Your task to perform on an android device: delete a single message in the gmail app Image 0: 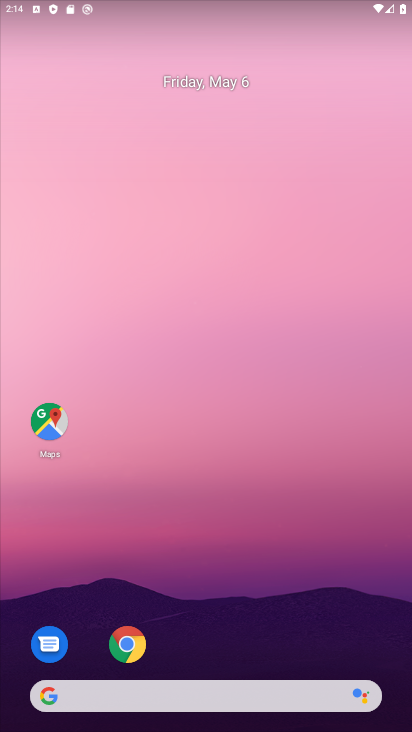
Step 0: drag from (198, 718) to (330, 15)
Your task to perform on an android device: delete a single message in the gmail app Image 1: 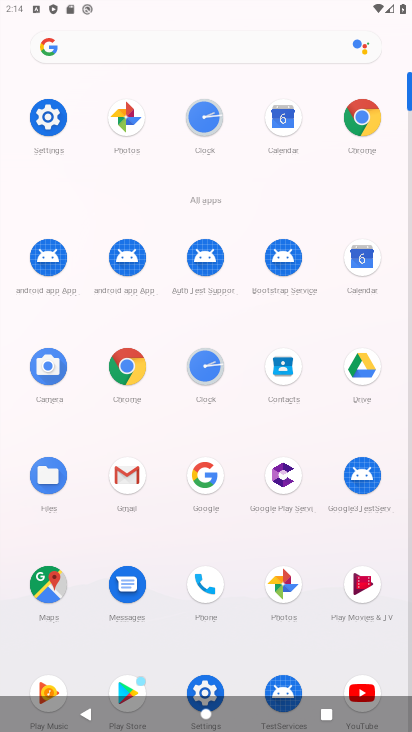
Step 1: click (134, 479)
Your task to perform on an android device: delete a single message in the gmail app Image 2: 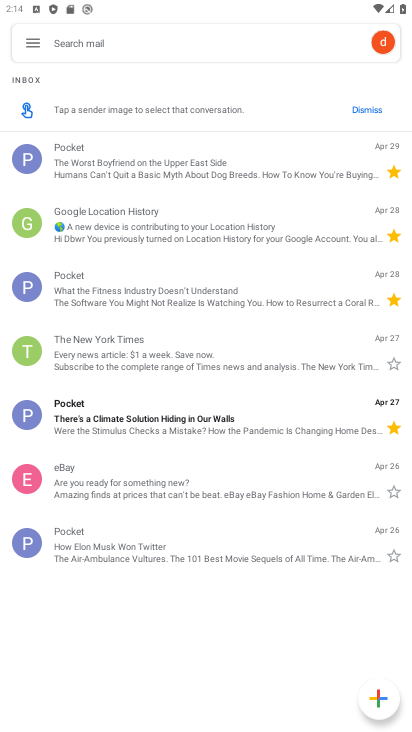
Step 2: click (292, 184)
Your task to perform on an android device: delete a single message in the gmail app Image 3: 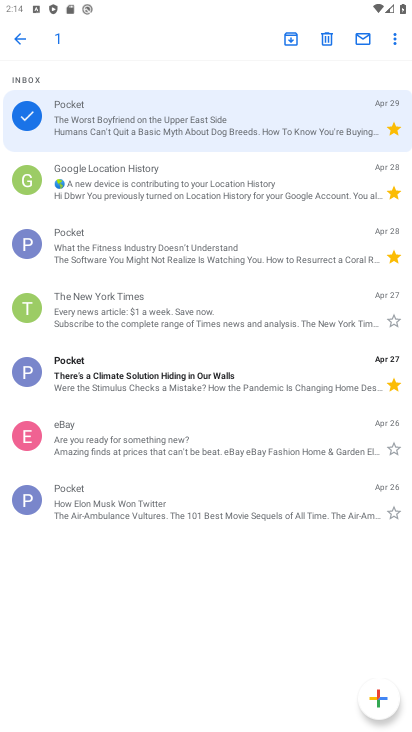
Step 3: click (321, 35)
Your task to perform on an android device: delete a single message in the gmail app Image 4: 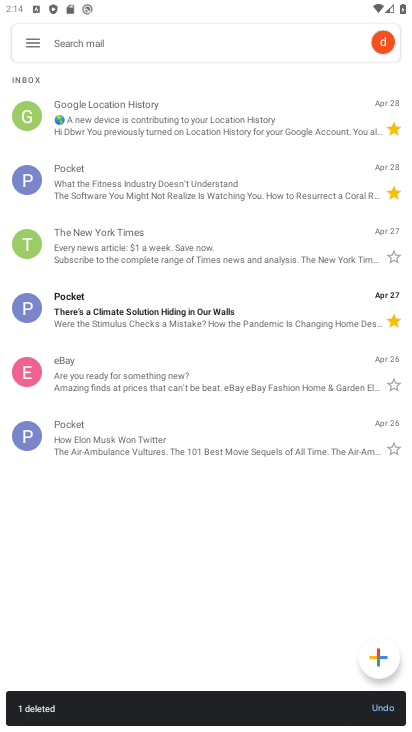
Step 4: task complete